Your task to perform on an android device: turn off notifications settings in the gmail app Image 0: 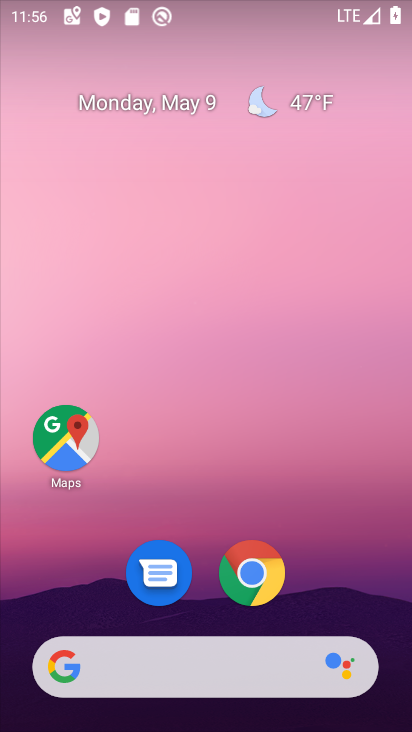
Step 0: drag from (195, 623) to (213, 397)
Your task to perform on an android device: turn off notifications settings in the gmail app Image 1: 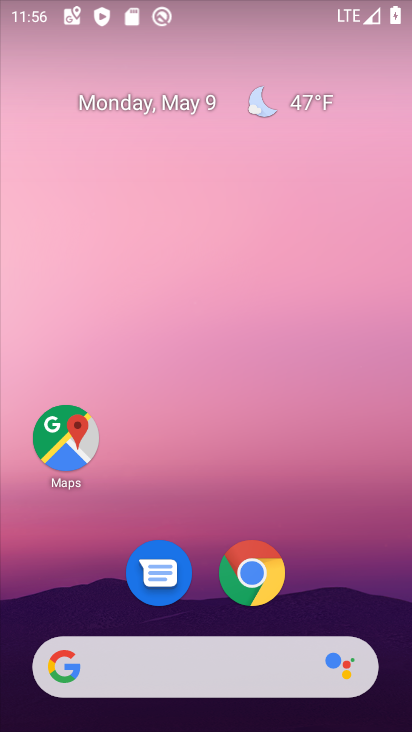
Step 1: drag from (211, 632) to (330, 137)
Your task to perform on an android device: turn off notifications settings in the gmail app Image 2: 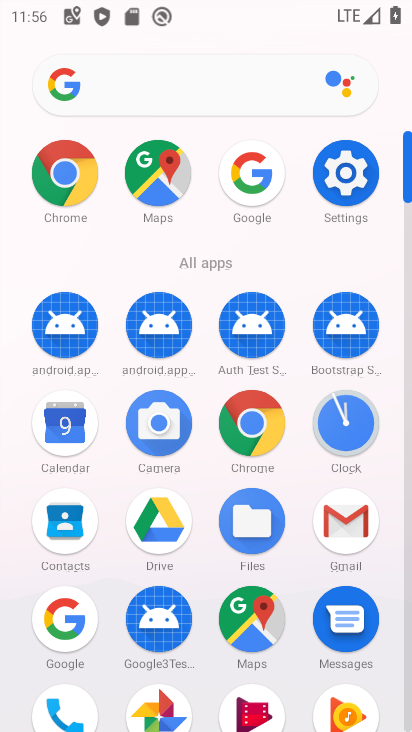
Step 2: click (346, 508)
Your task to perform on an android device: turn off notifications settings in the gmail app Image 3: 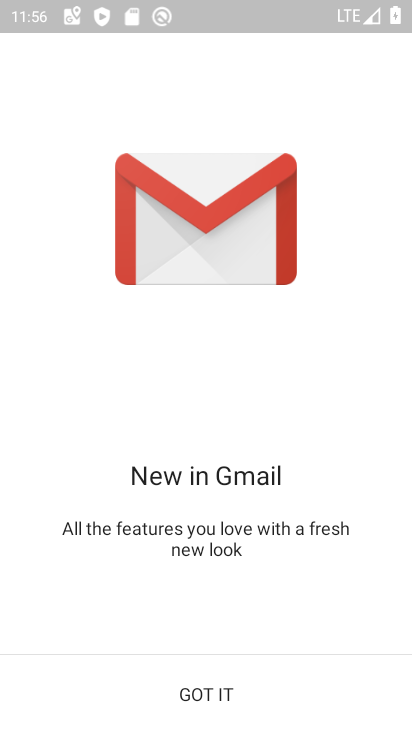
Step 3: click (181, 686)
Your task to perform on an android device: turn off notifications settings in the gmail app Image 4: 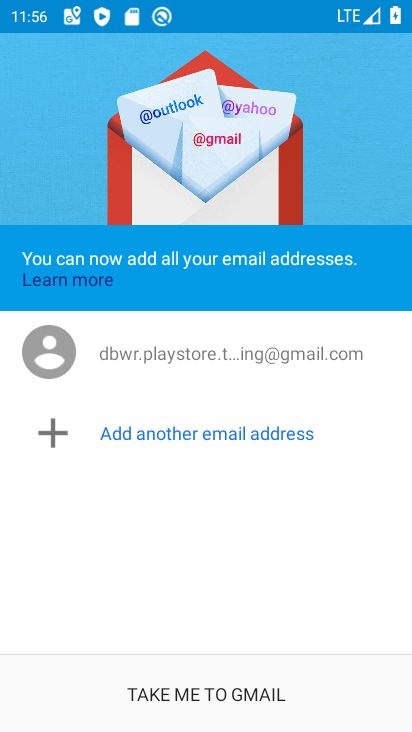
Step 4: click (236, 677)
Your task to perform on an android device: turn off notifications settings in the gmail app Image 5: 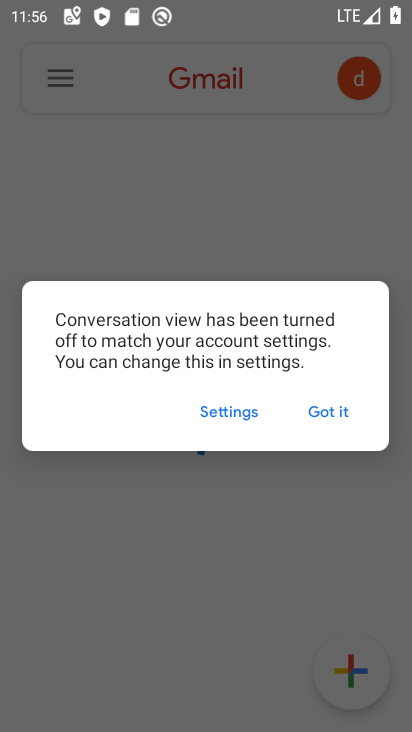
Step 5: click (327, 406)
Your task to perform on an android device: turn off notifications settings in the gmail app Image 6: 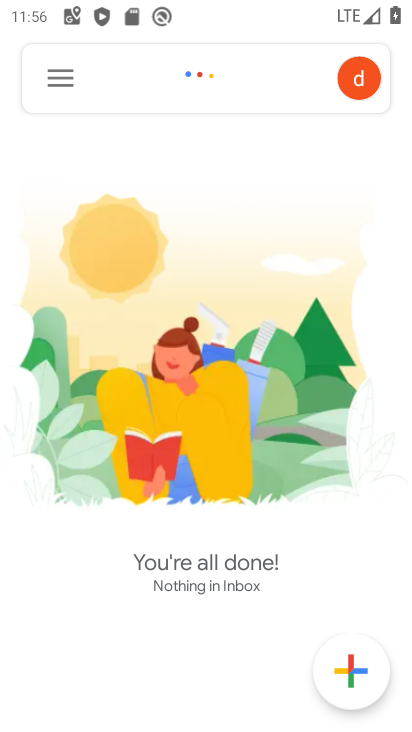
Step 6: click (59, 66)
Your task to perform on an android device: turn off notifications settings in the gmail app Image 7: 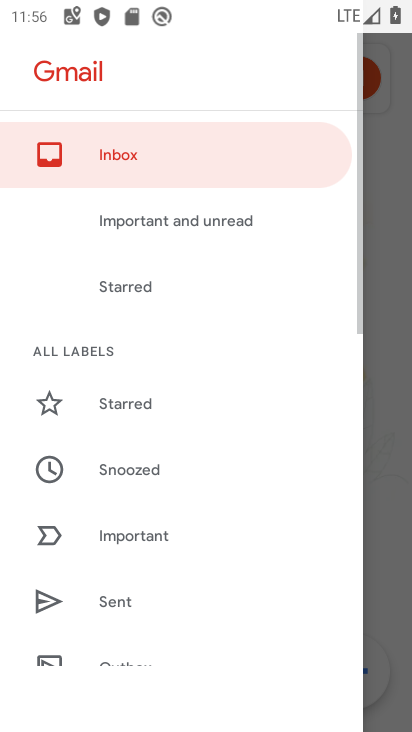
Step 7: drag from (201, 626) to (296, 75)
Your task to perform on an android device: turn off notifications settings in the gmail app Image 8: 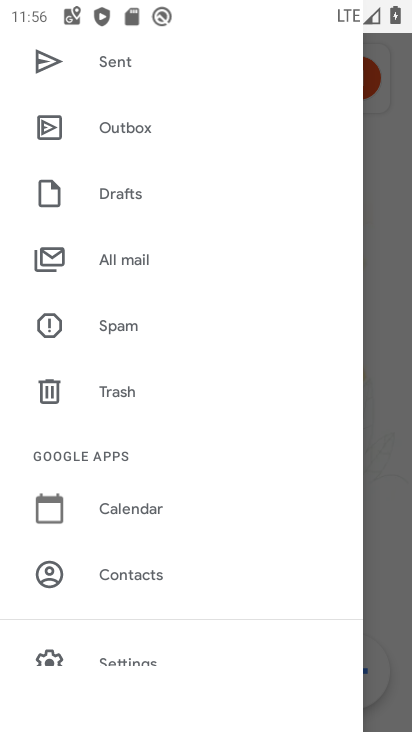
Step 8: drag from (144, 612) to (339, 101)
Your task to perform on an android device: turn off notifications settings in the gmail app Image 9: 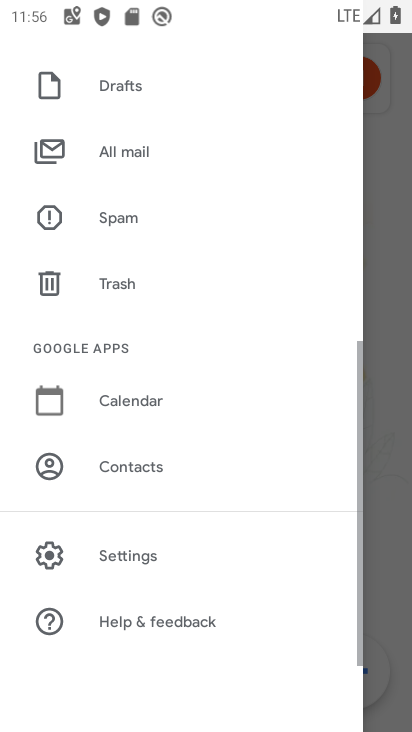
Step 9: click (158, 566)
Your task to perform on an android device: turn off notifications settings in the gmail app Image 10: 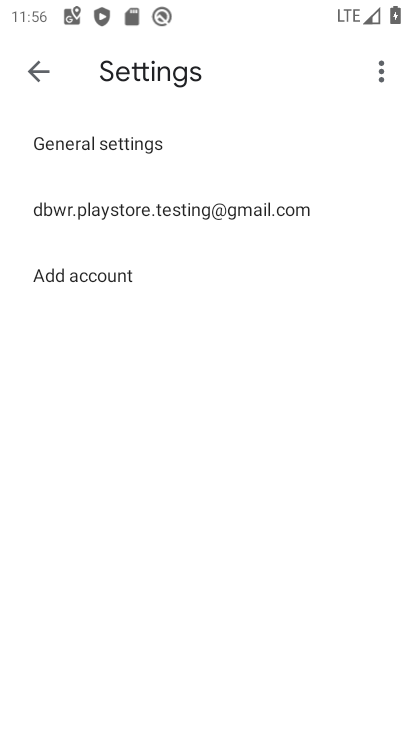
Step 10: click (155, 222)
Your task to perform on an android device: turn off notifications settings in the gmail app Image 11: 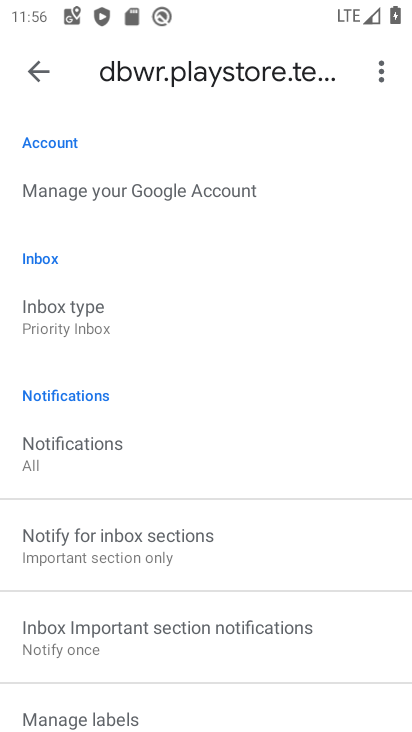
Step 11: drag from (142, 715) to (244, 292)
Your task to perform on an android device: turn off notifications settings in the gmail app Image 12: 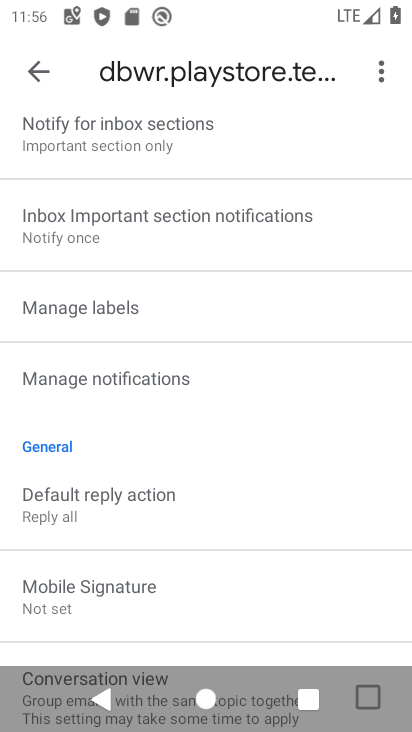
Step 12: click (96, 383)
Your task to perform on an android device: turn off notifications settings in the gmail app Image 13: 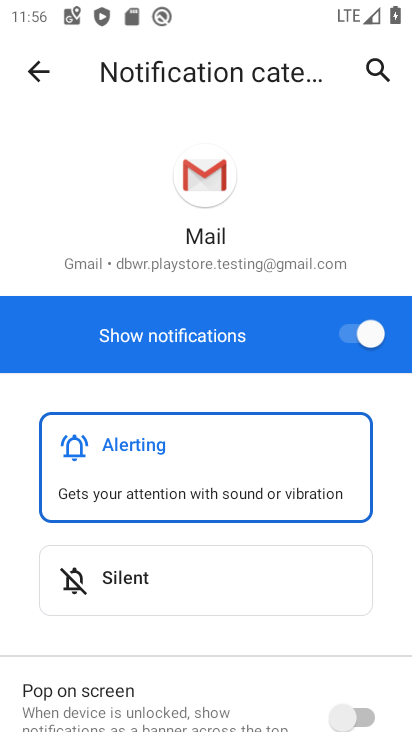
Step 13: drag from (204, 682) to (237, 392)
Your task to perform on an android device: turn off notifications settings in the gmail app Image 14: 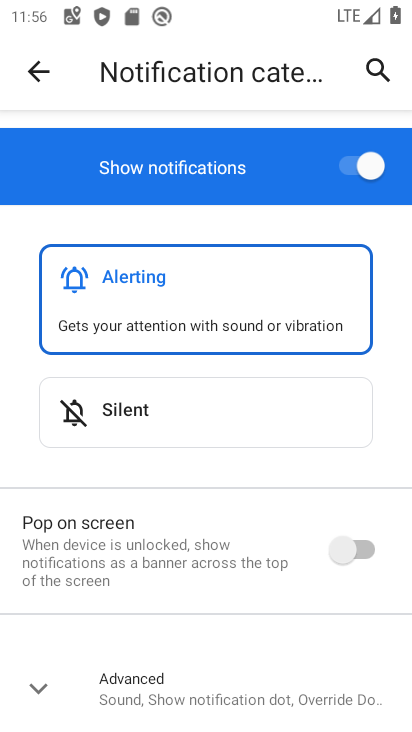
Step 14: click (336, 176)
Your task to perform on an android device: turn off notifications settings in the gmail app Image 15: 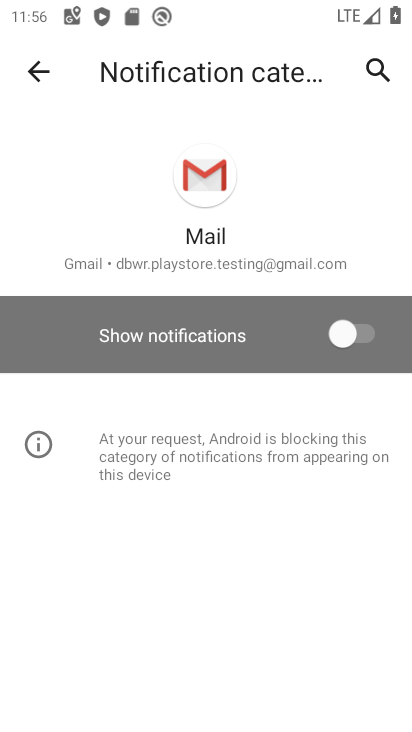
Step 15: task complete